Your task to perform on an android device: Go to wifi settings Image 0: 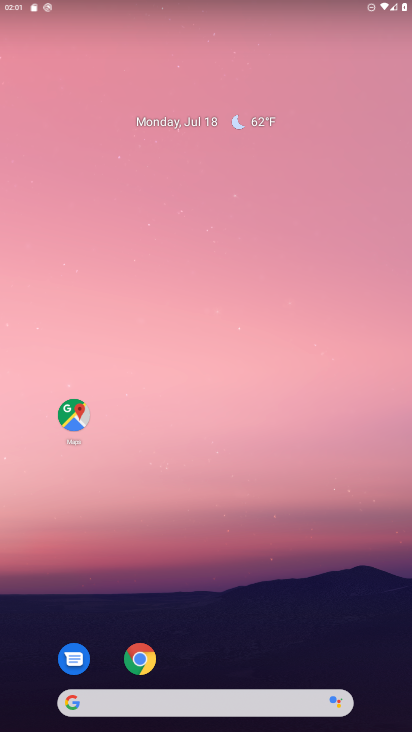
Step 0: drag from (237, 219) to (217, 115)
Your task to perform on an android device: Go to wifi settings Image 1: 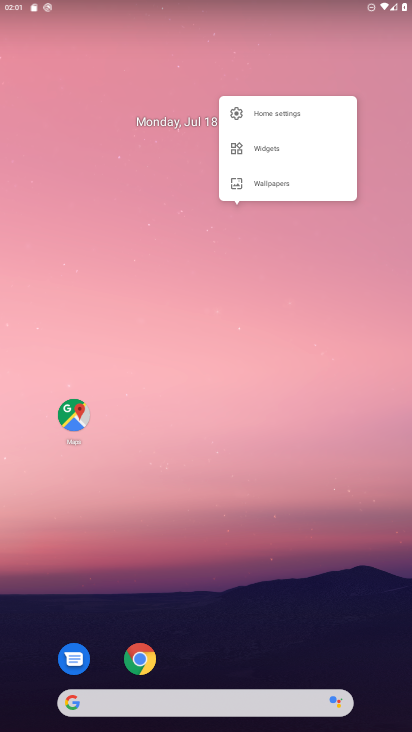
Step 1: drag from (246, 558) to (203, 142)
Your task to perform on an android device: Go to wifi settings Image 2: 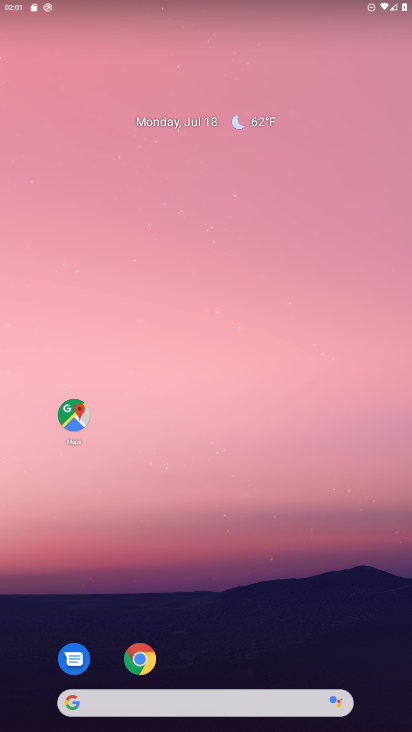
Step 2: click (202, 403)
Your task to perform on an android device: Go to wifi settings Image 3: 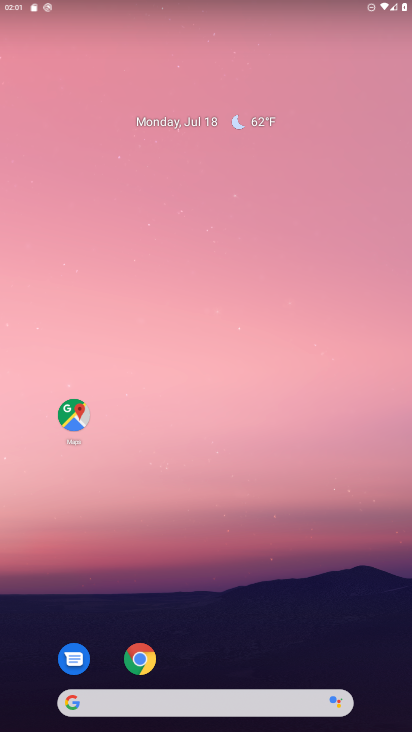
Step 3: drag from (329, 641) to (232, 95)
Your task to perform on an android device: Go to wifi settings Image 4: 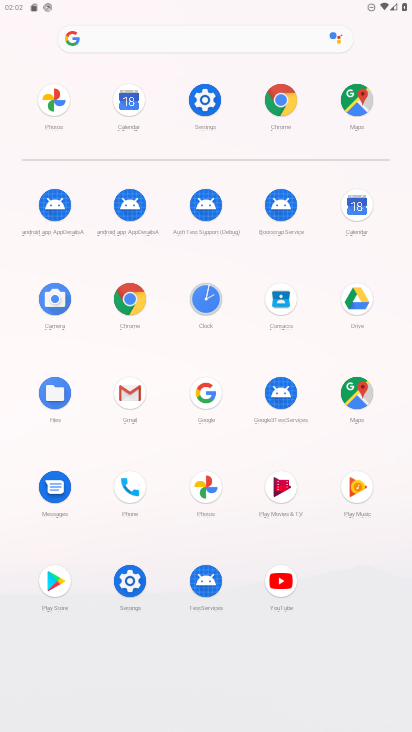
Step 4: click (210, 100)
Your task to perform on an android device: Go to wifi settings Image 5: 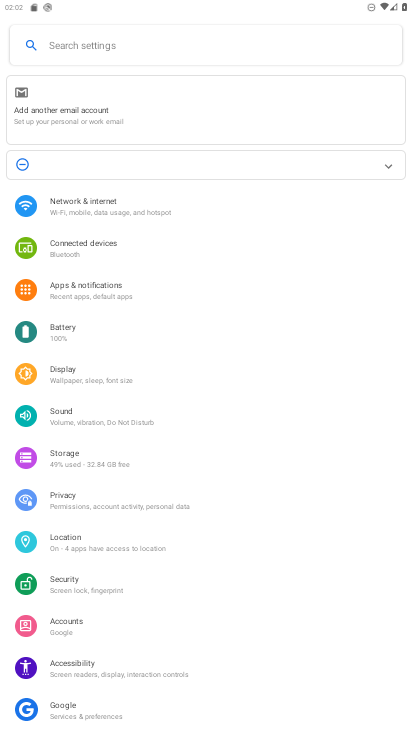
Step 5: click (101, 212)
Your task to perform on an android device: Go to wifi settings Image 6: 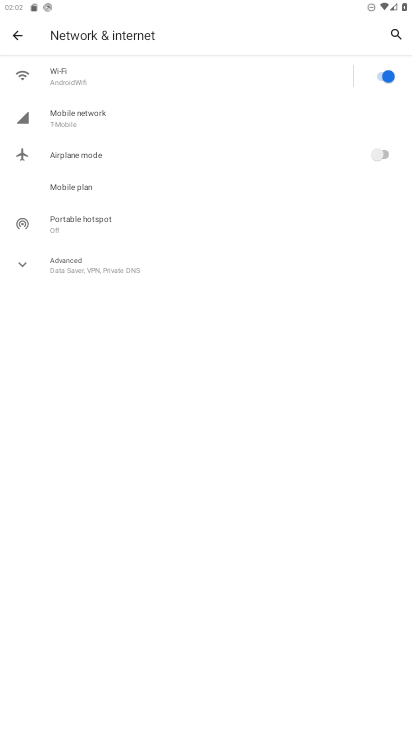
Step 6: click (113, 79)
Your task to perform on an android device: Go to wifi settings Image 7: 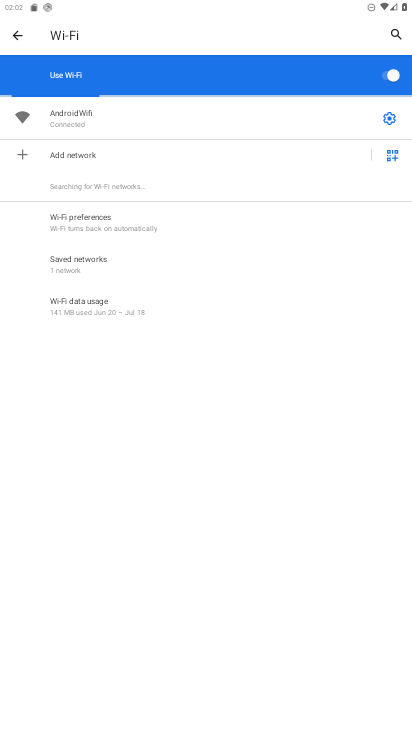
Step 7: click (385, 119)
Your task to perform on an android device: Go to wifi settings Image 8: 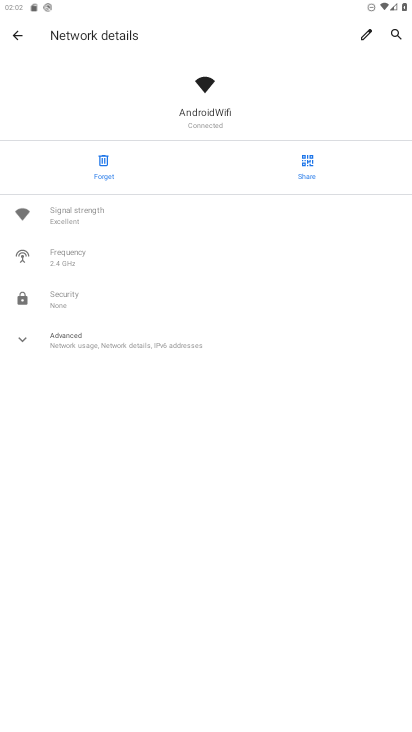
Step 8: task complete